Your task to perform on an android device: add a contact in the contacts app Image 0: 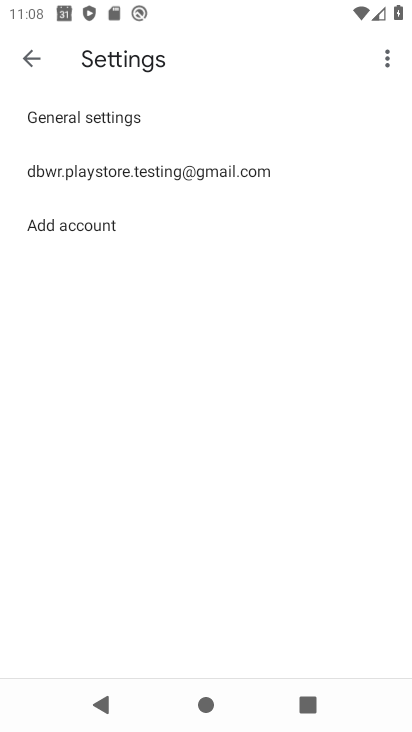
Step 0: press home button
Your task to perform on an android device: add a contact in the contacts app Image 1: 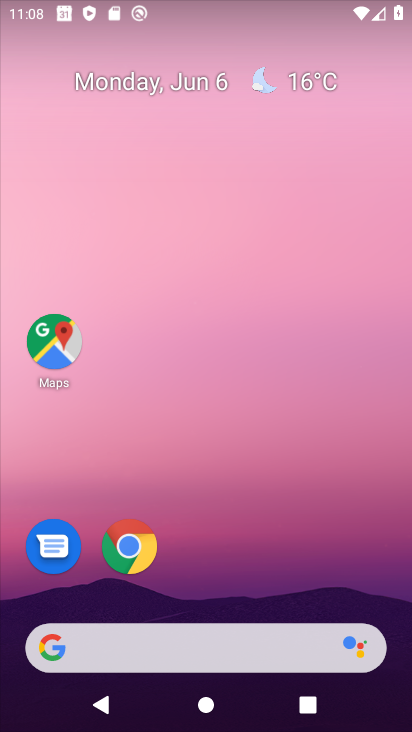
Step 1: drag from (284, 532) to (319, 170)
Your task to perform on an android device: add a contact in the contacts app Image 2: 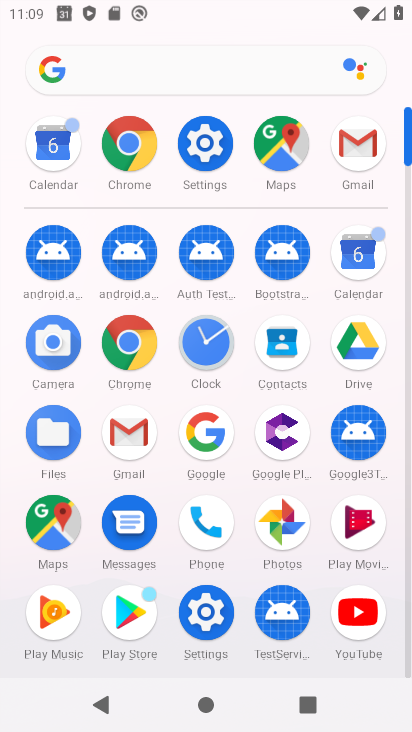
Step 2: click (282, 365)
Your task to perform on an android device: add a contact in the contacts app Image 3: 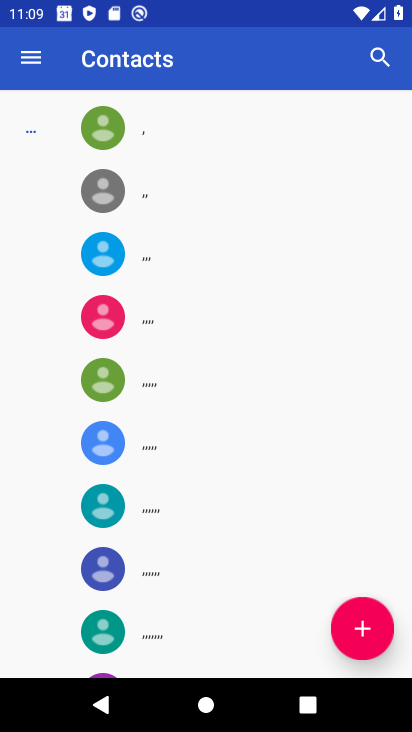
Step 3: click (370, 615)
Your task to perform on an android device: add a contact in the contacts app Image 4: 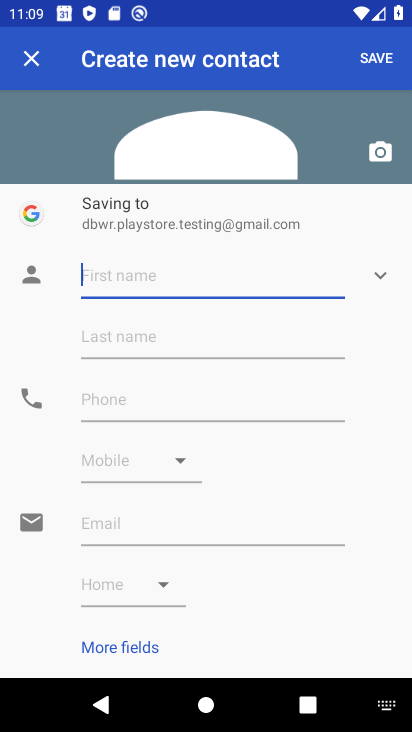
Step 4: type "ok"
Your task to perform on an android device: add a contact in the contacts app Image 5: 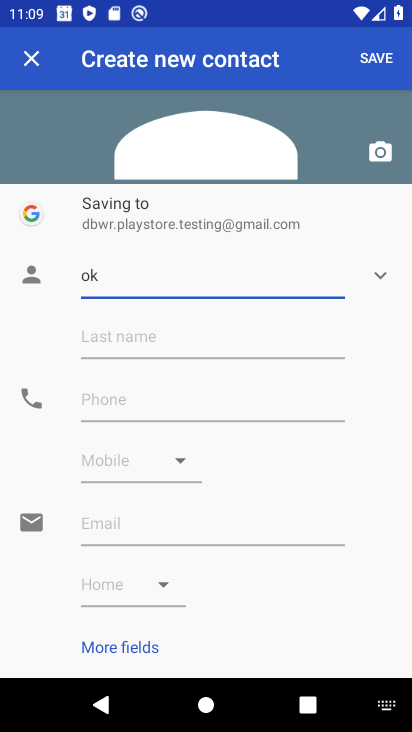
Step 5: click (388, 54)
Your task to perform on an android device: add a contact in the contacts app Image 6: 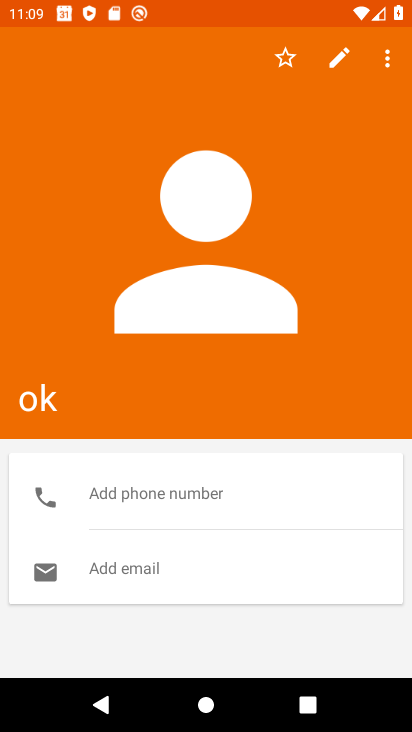
Step 6: task complete